Your task to perform on an android device: empty trash in google photos Image 0: 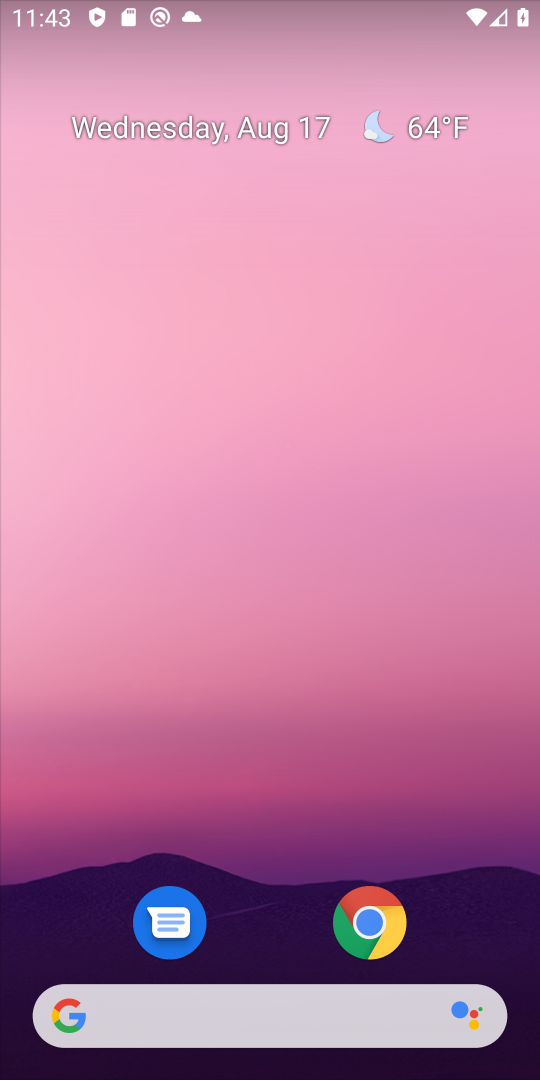
Step 0: drag from (289, 870) to (289, 378)
Your task to perform on an android device: empty trash in google photos Image 1: 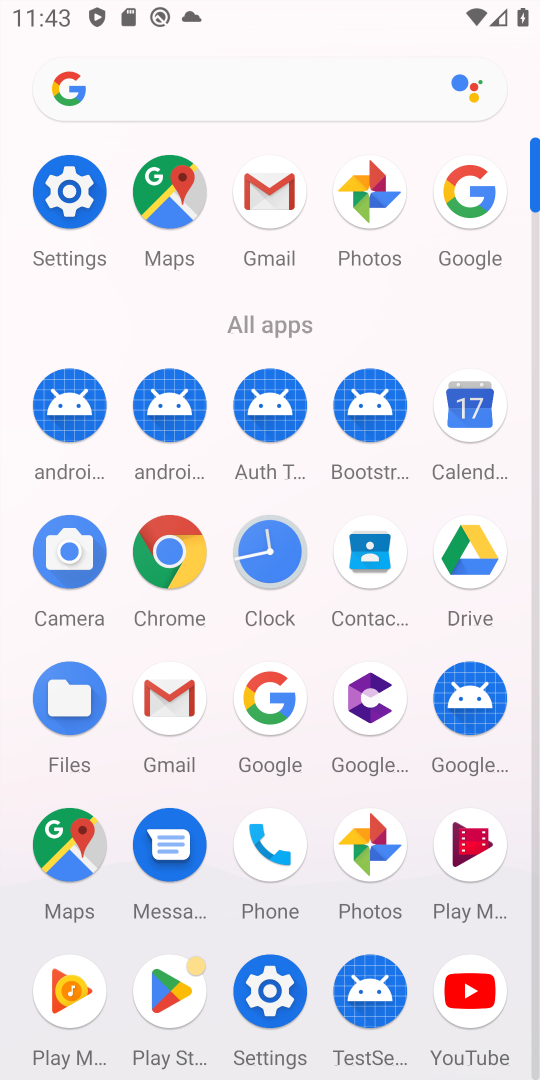
Step 1: click (369, 189)
Your task to perform on an android device: empty trash in google photos Image 2: 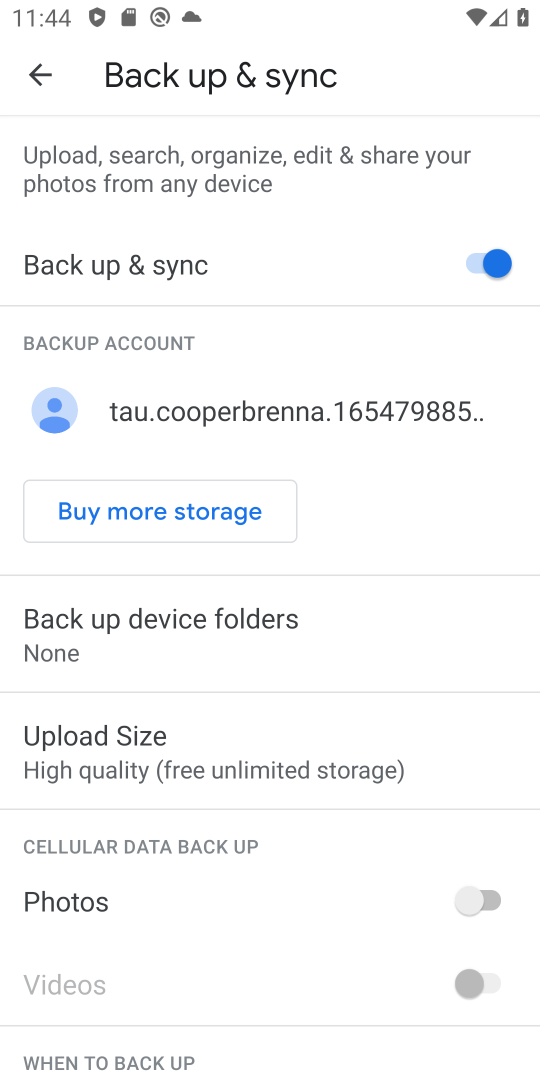
Step 2: click (45, 62)
Your task to perform on an android device: empty trash in google photos Image 3: 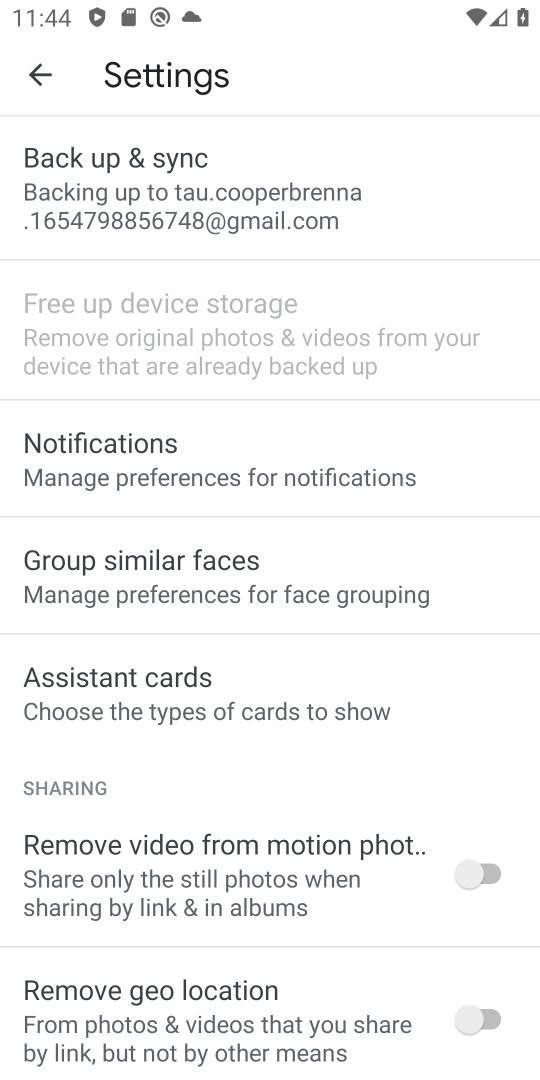
Step 3: click (30, 74)
Your task to perform on an android device: empty trash in google photos Image 4: 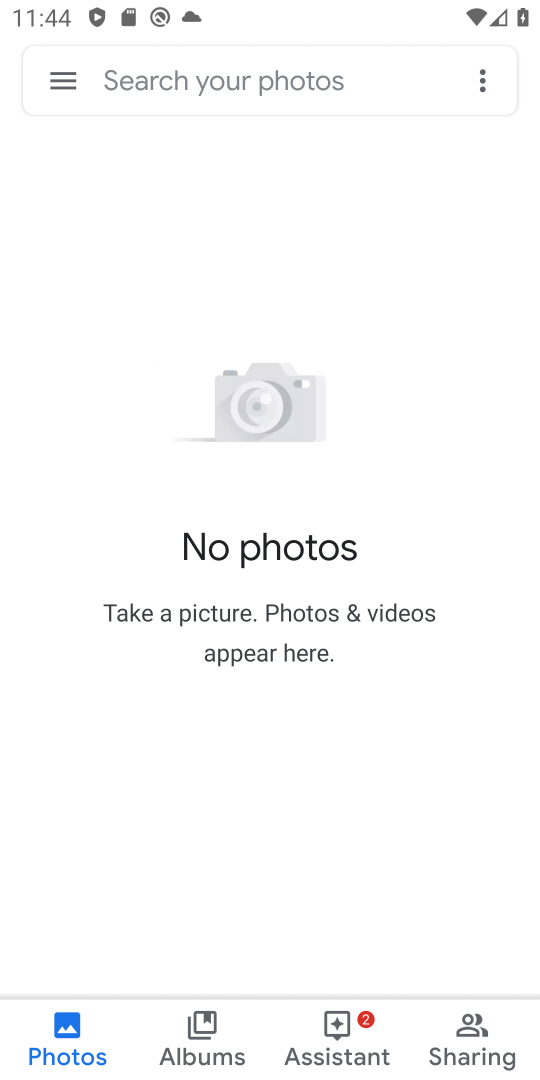
Step 4: click (59, 64)
Your task to perform on an android device: empty trash in google photos Image 5: 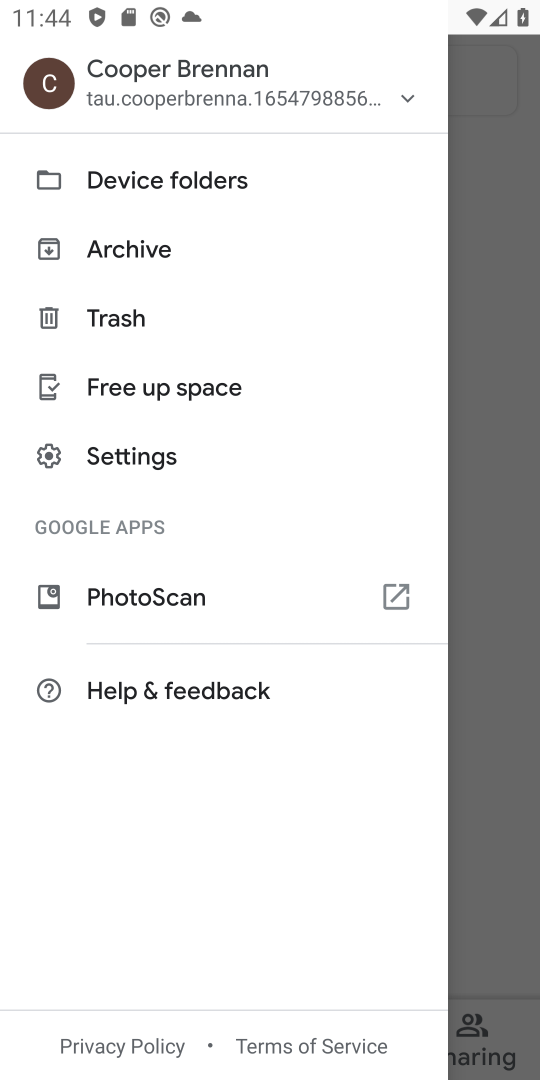
Step 5: click (125, 315)
Your task to perform on an android device: empty trash in google photos Image 6: 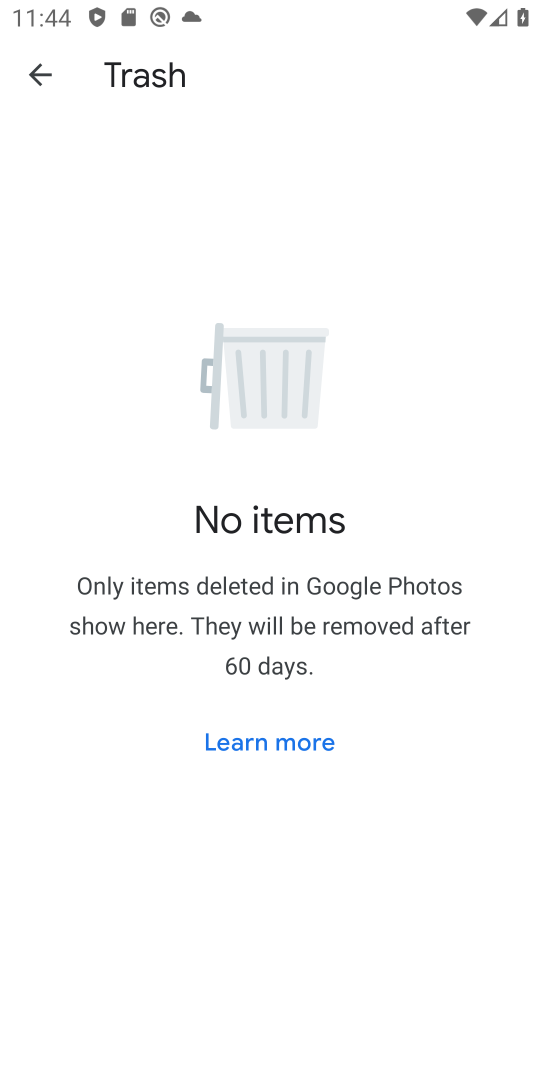
Step 6: task complete